Your task to perform on an android device: Show me popular videos on Youtube Image 0: 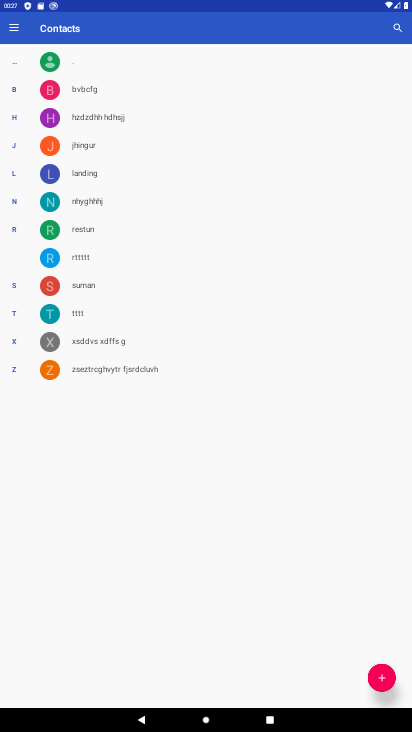
Step 0: press home button
Your task to perform on an android device: Show me popular videos on Youtube Image 1: 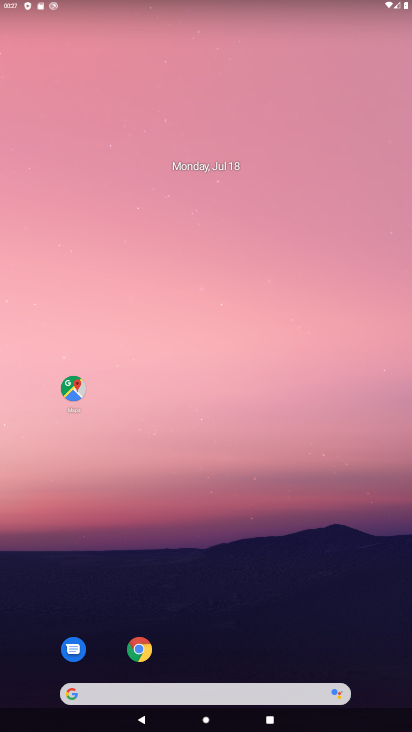
Step 1: drag from (223, 624) to (254, 203)
Your task to perform on an android device: Show me popular videos on Youtube Image 2: 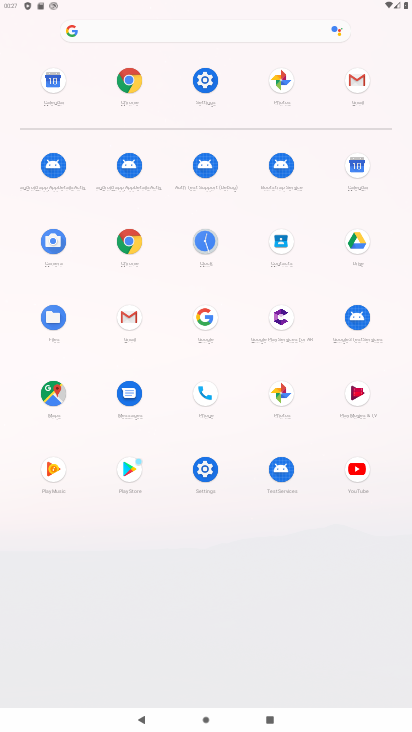
Step 2: click (361, 488)
Your task to perform on an android device: Show me popular videos on Youtube Image 3: 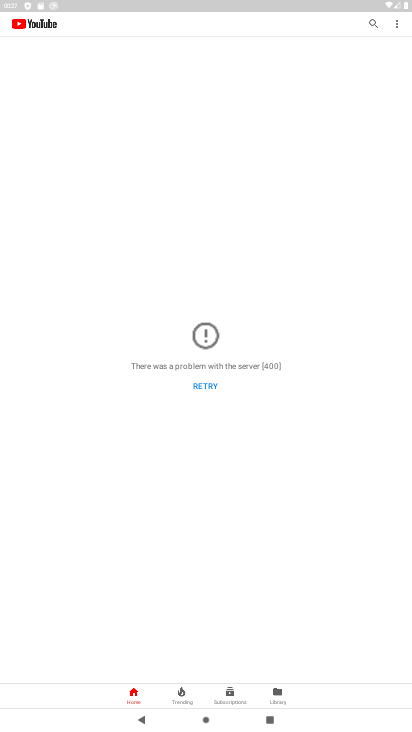
Step 3: task complete